Your task to perform on an android device: Open privacy settings Image 0: 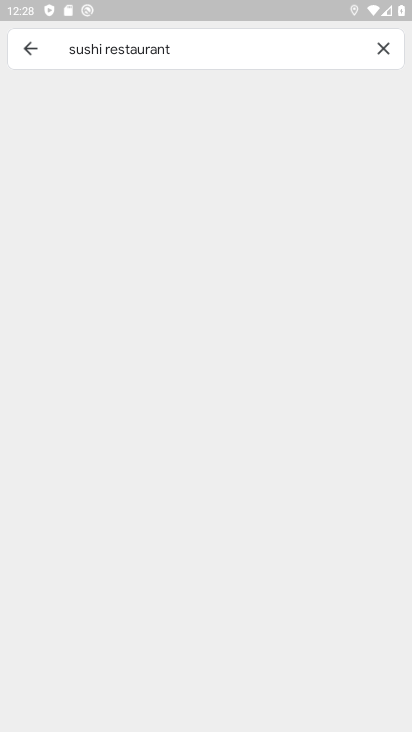
Step 0: press home button
Your task to perform on an android device: Open privacy settings Image 1: 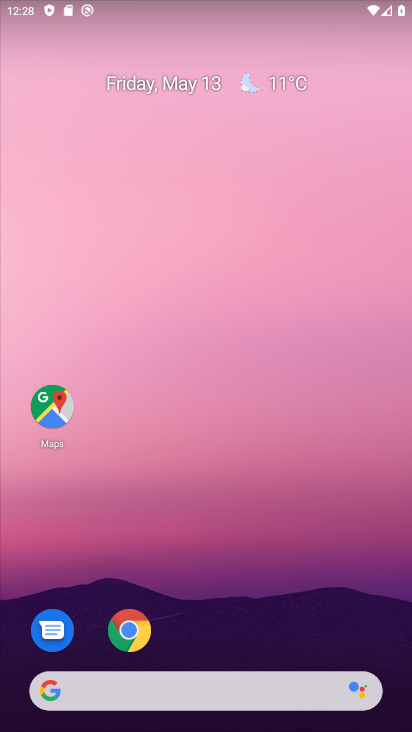
Step 1: drag from (349, 651) to (339, 0)
Your task to perform on an android device: Open privacy settings Image 2: 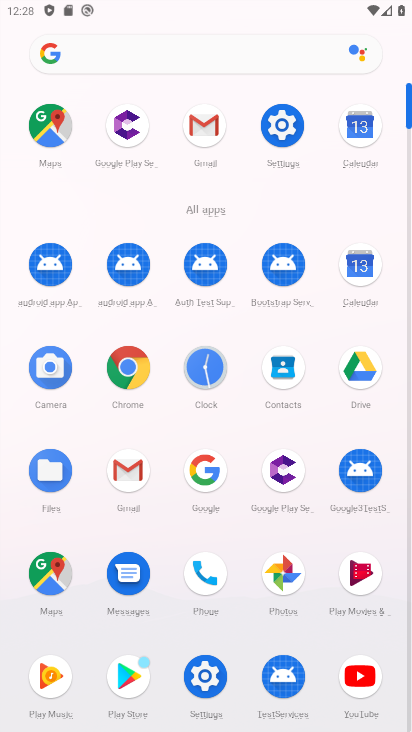
Step 2: click (286, 131)
Your task to perform on an android device: Open privacy settings Image 3: 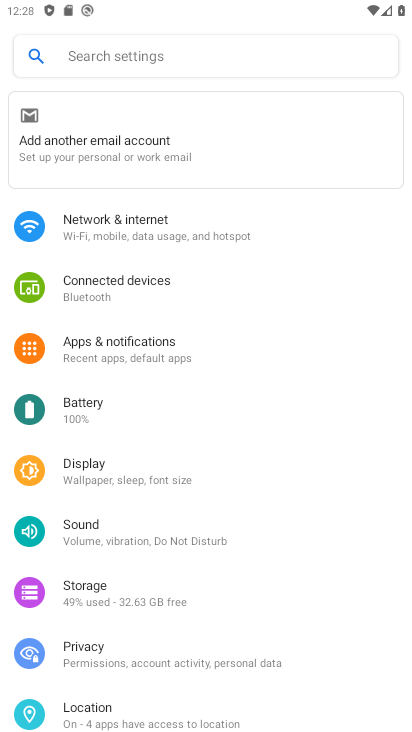
Step 3: click (84, 648)
Your task to perform on an android device: Open privacy settings Image 4: 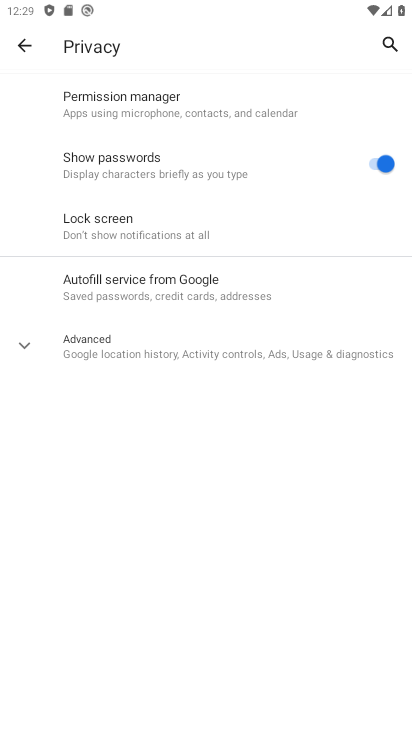
Step 4: task complete